Your task to perform on an android device: Open the Play Movies app and select the watchlist tab. Image 0: 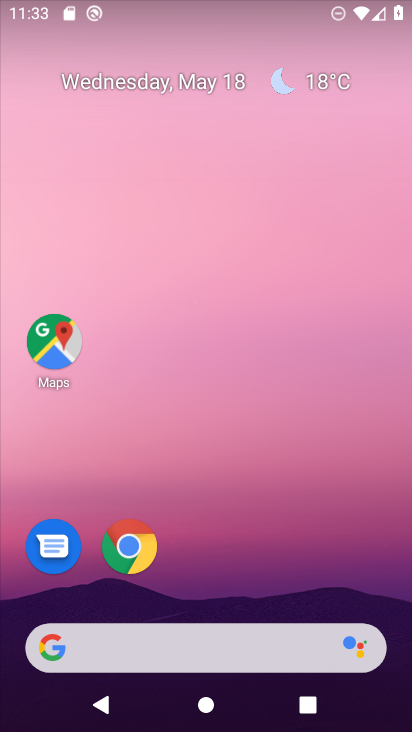
Step 0: drag from (226, 729) to (233, 425)
Your task to perform on an android device: Open the Play Movies app and select the watchlist tab. Image 1: 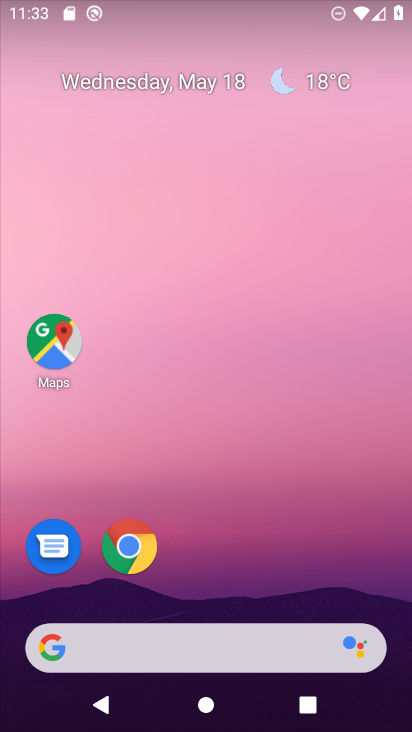
Step 1: drag from (219, 725) to (230, 265)
Your task to perform on an android device: Open the Play Movies app and select the watchlist tab. Image 2: 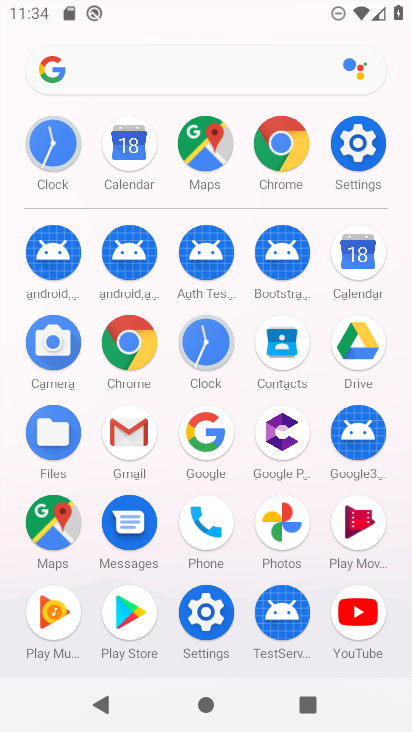
Step 2: click (353, 529)
Your task to perform on an android device: Open the Play Movies app and select the watchlist tab. Image 3: 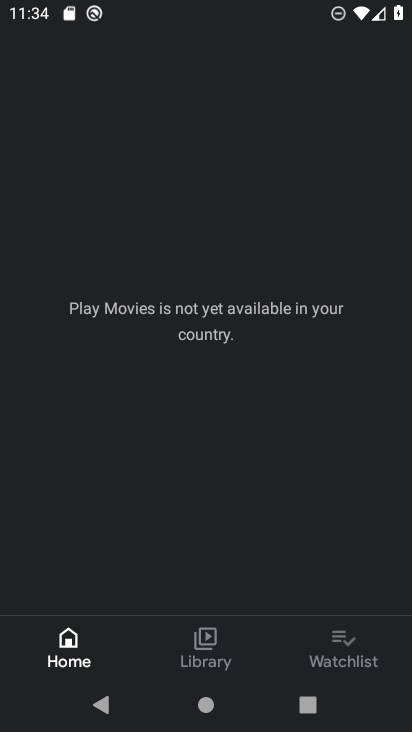
Step 3: click (327, 647)
Your task to perform on an android device: Open the Play Movies app and select the watchlist tab. Image 4: 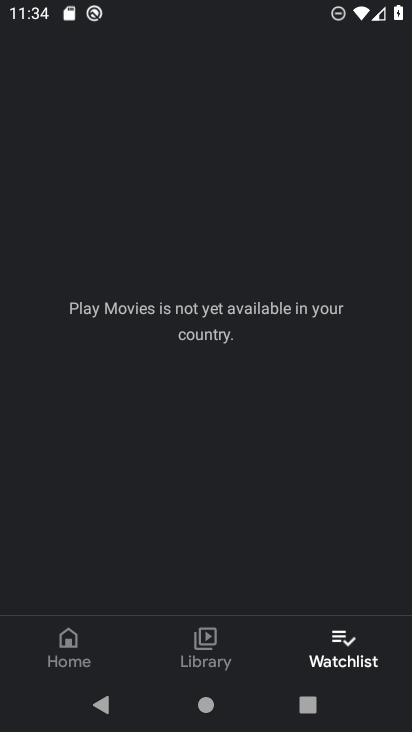
Step 4: task complete